Your task to perform on an android device: open chrome privacy settings Image 0: 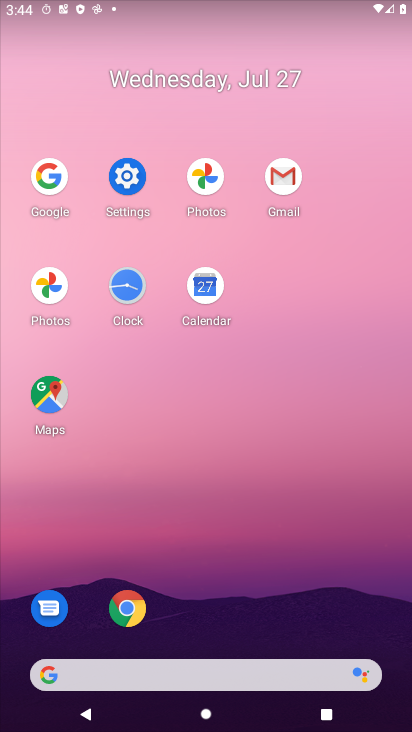
Step 0: click (132, 189)
Your task to perform on an android device: open chrome privacy settings Image 1: 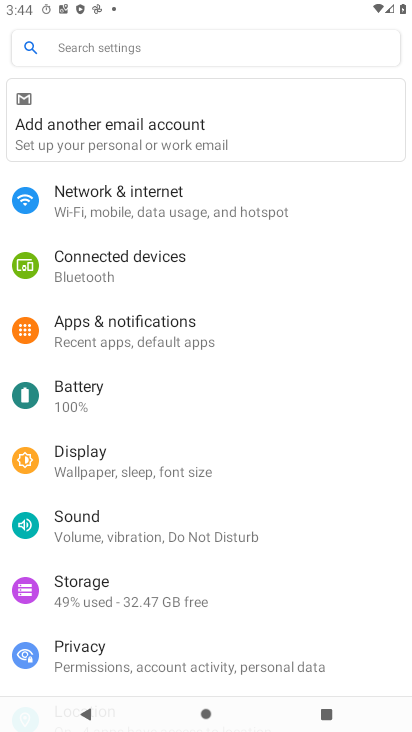
Step 1: click (177, 655)
Your task to perform on an android device: open chrome privacy settings Image 2: 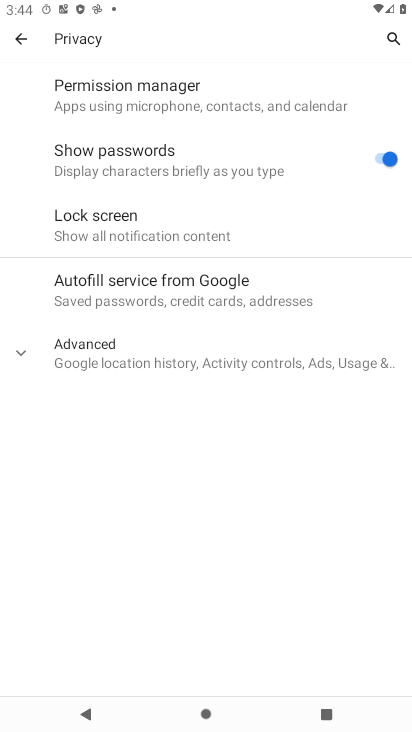
Step 2: task complete